Your task to perform on an android device: Open the map Image 0: 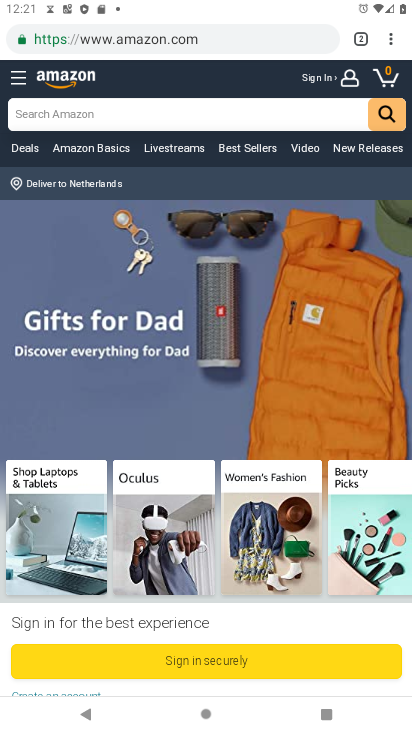
Step 0: press home button
Your task to perform on an android device: Open the map Image 1: 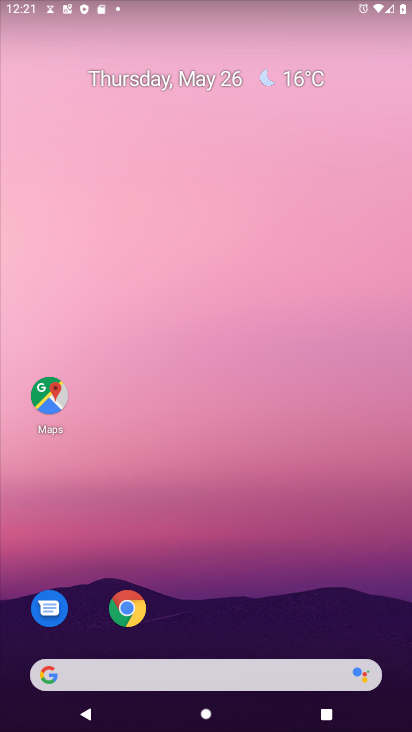
Step 1: drag from (230, 719) to (208, 0)
Your task to perform on an android device: Open the map Image 2: 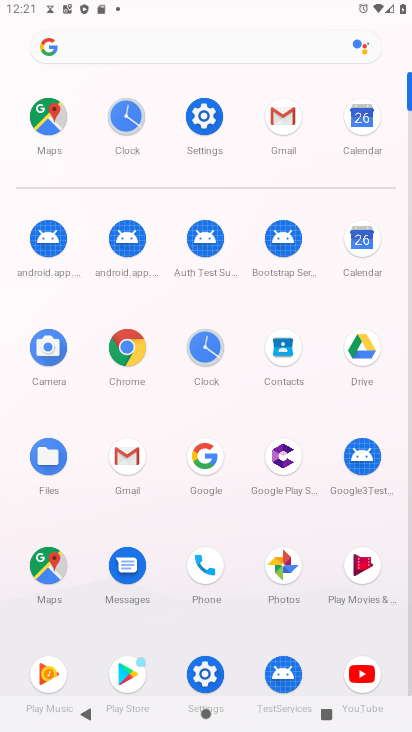
Step 2: click (47, 564)
Your task to perform on an android device: Open the map Image 3: 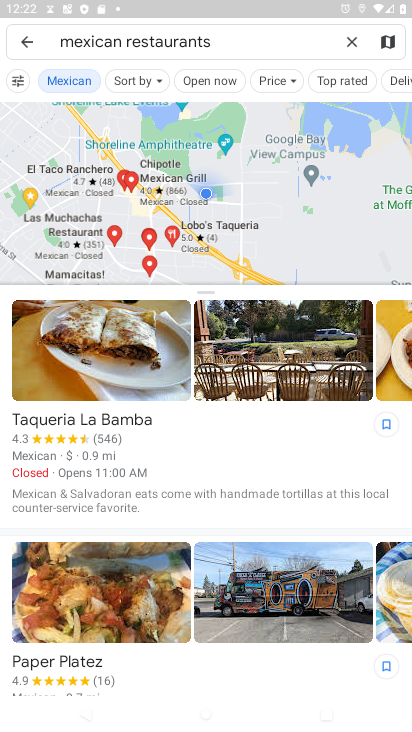
Step 3: task complete